Your task to perform on an android device: allow cookies in the chrome app Image 0: 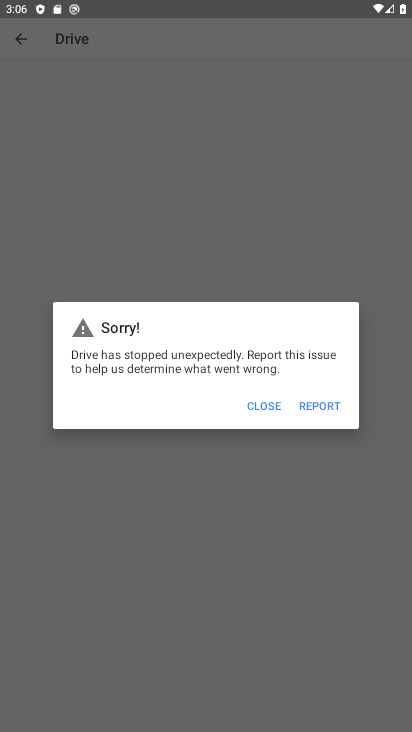
Step 0: press back button
Your task to perform on an android device: allow cookies in the chrome app Image 1: 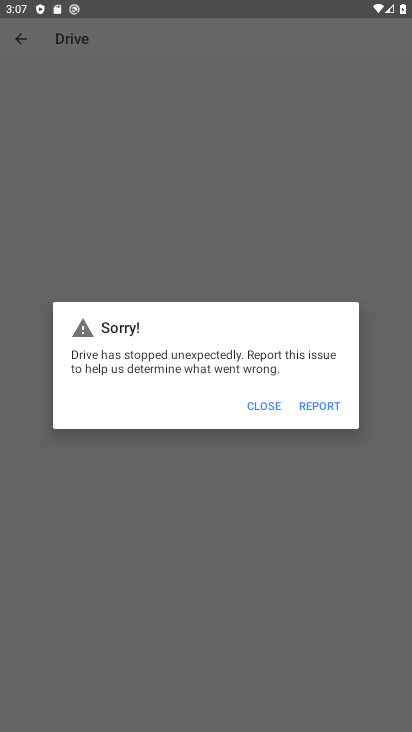
Step 1: press home button
Your task to perform on an android device: allow cookies in the chrome app Image 2: 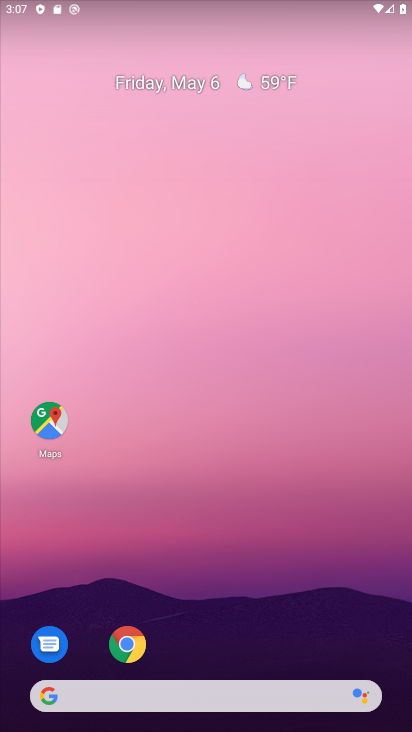
Step 2: click (128, 645)
Your task to perform on an android device: allow cookies in the chrome app Image 3: 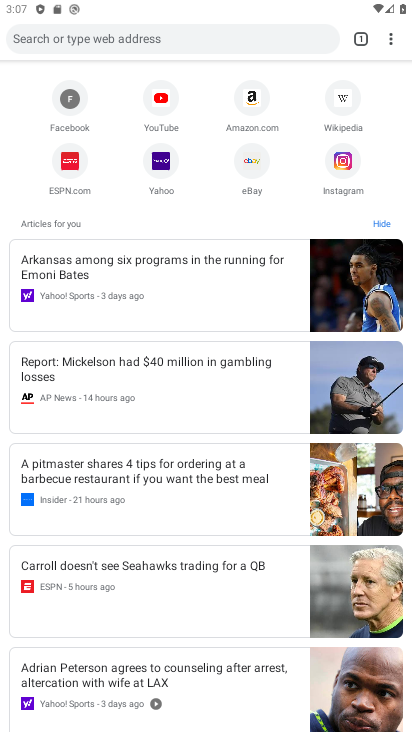
Step 3: click (391, 37)
Your task to perform on an android device: allow cookies in the chrome app Image 4: 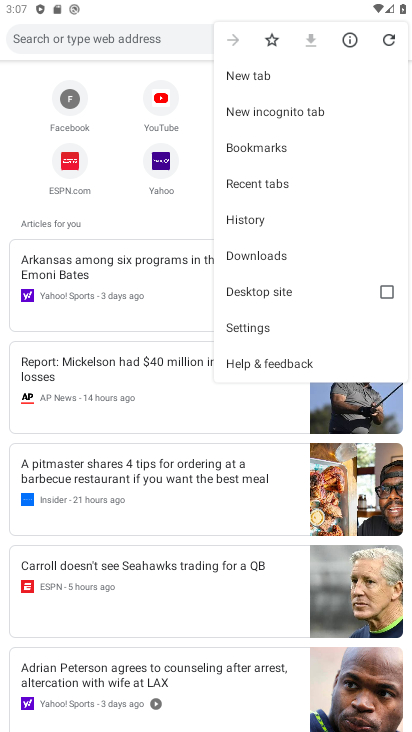
Step 4: click (266, 332)
Your task to perform on an android device: allow cookies in the chrome app Image 5: 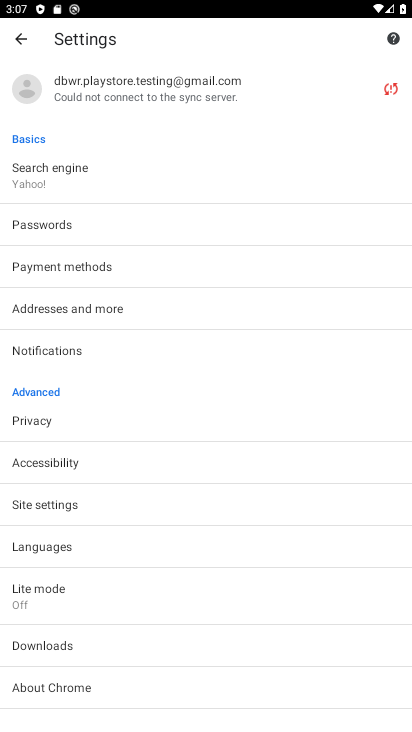
Step 5: click (68, 503)
Your task to perform on an android device: allow cookies in the chrome app Image 6: 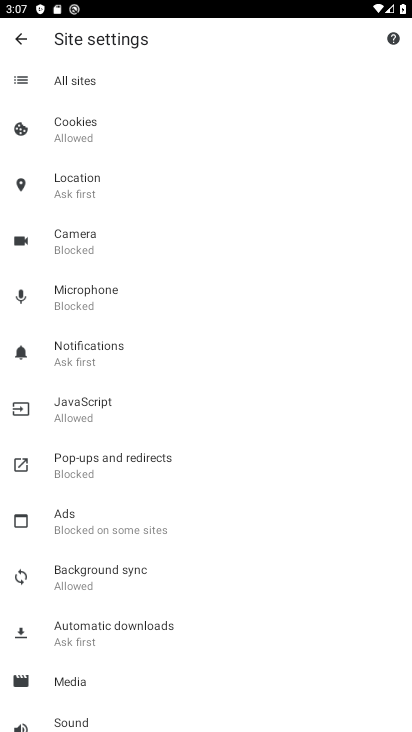
Step 6: click (93, 129)
Your task to perform on an android device: allow cookies in the chrome app Image 7: 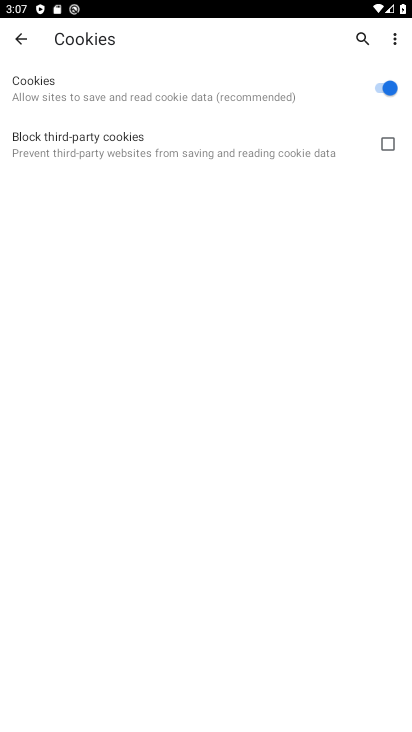
Step 7: click (383, 139)
Your task to perform on an android device: allow cookies in the chrome app Image 8: 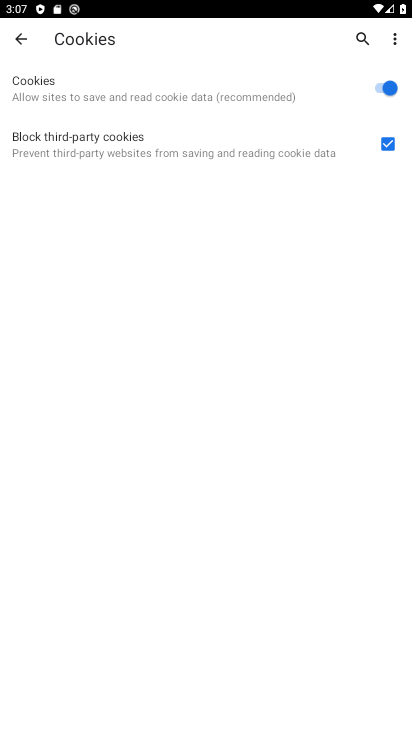
Step 8: task complete